Your task to perform on an android device: set default search engine in the chrome app Image 0: 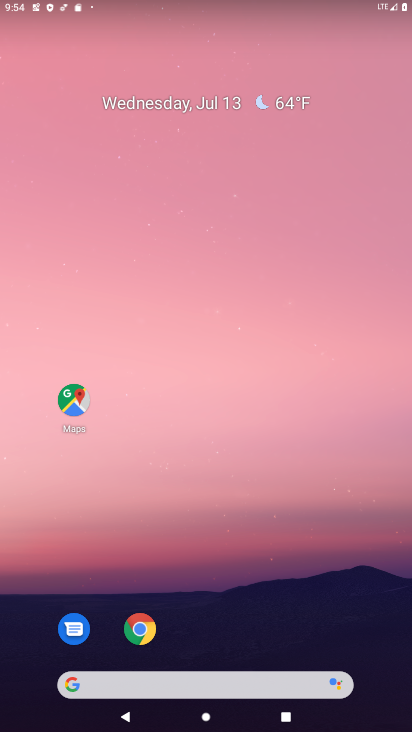
Step 0: drag from (205, 584) to (200, 313)
Your task to perform on an android device: set default search engine in the chrome app Image 1: 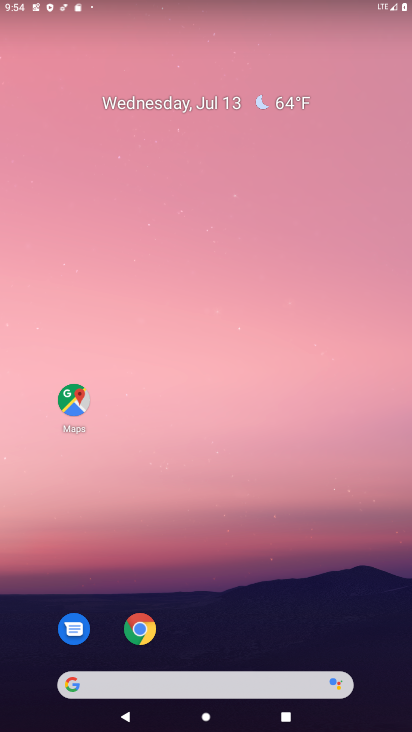
Step 1: drag from (234, 628) to (248, 229)
Your task to perform on an android device: set default search engine in the chrome app Image 2: 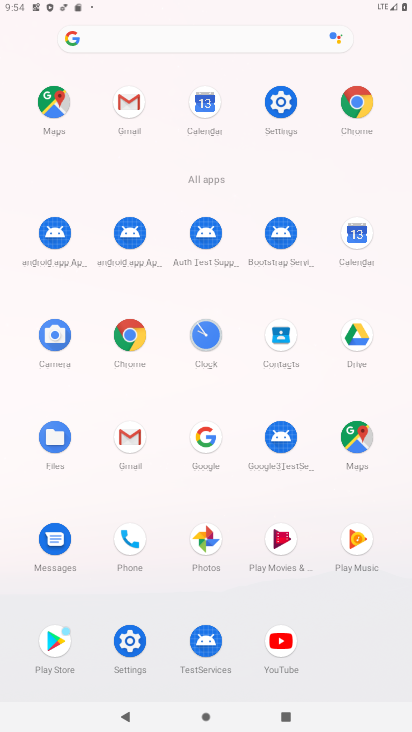
Step 2: click (354, 86)
Your task to perform on an android device: set default search engine in the chrome app Image 3: 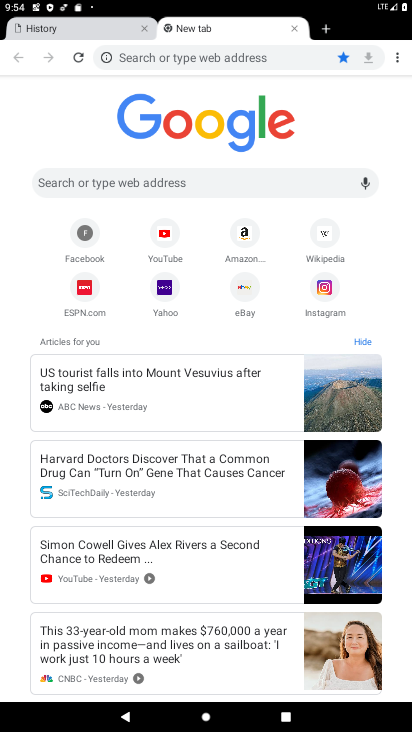
Step 3: click (402, 62)
Your task to perform on an android device: set default search engine in the chrome app Image 4: 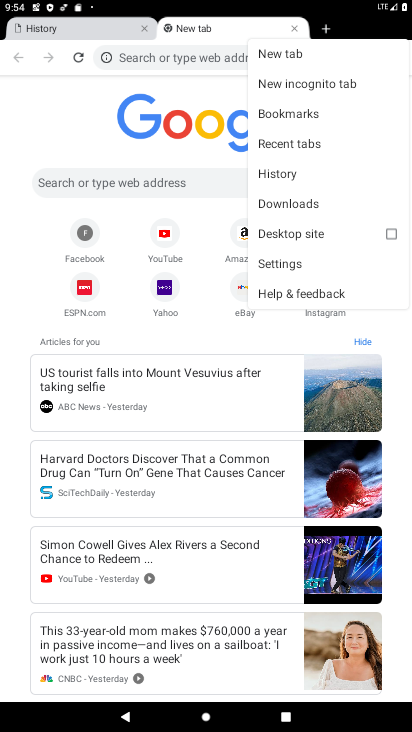
Step 4: click (294, 261)
Your task to perform on an android device: set default search engine in the chrome app Image 5: 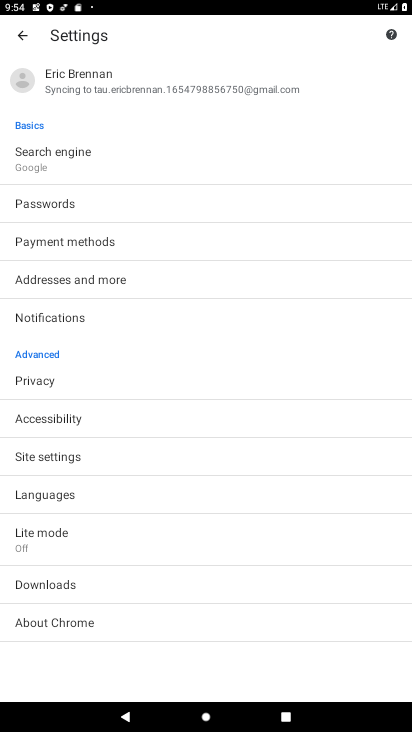
Step 5: click (74, 151)
Your task to perform on an android device: set default search engine in the chrome app Image 6: 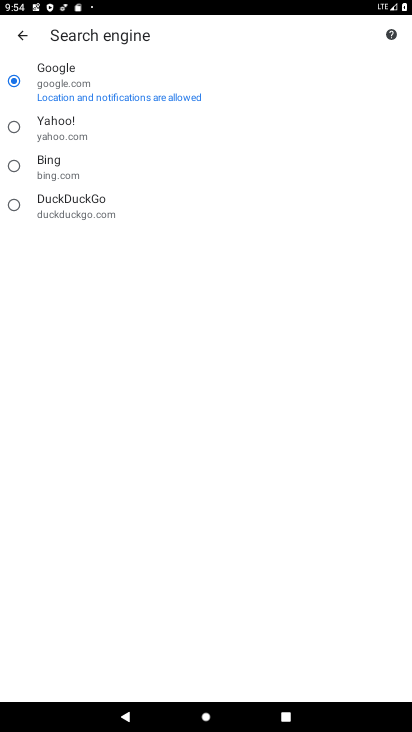
Step 6: click (65, 117)
Your task to perform on an android device: set default search engine in the chrome app Image 7: 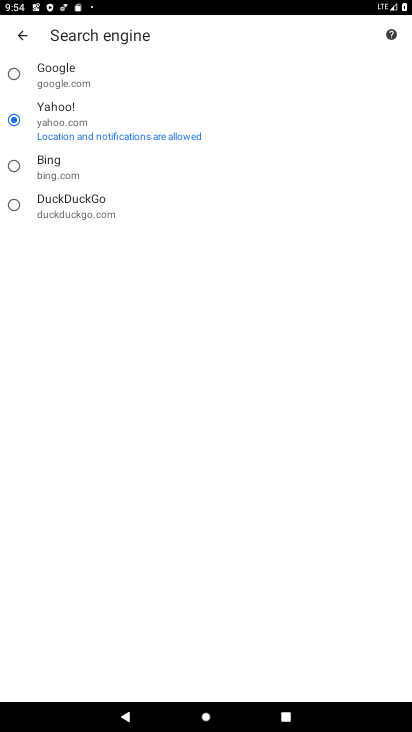
Step 7: task complete